Your task to perform on an android device: Go to CNN.com Image 0: 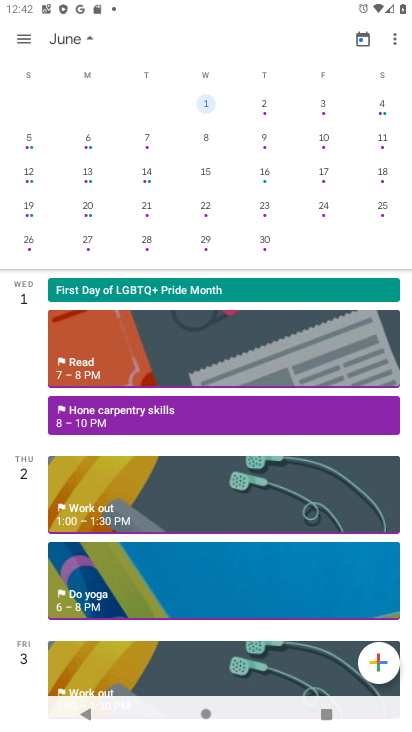
Step 0: press home button
Your task to perform on an android device: Go to CNN.com Image 1: 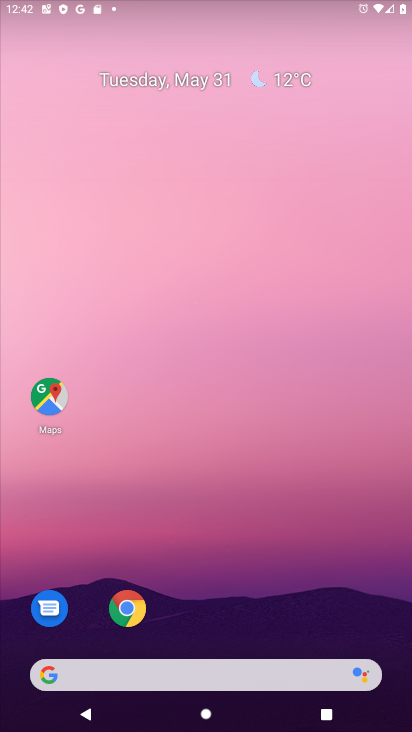
Step 1: drag from (233, 619) to (312, 66)
Your task to perform on an android device: Go to CNN.com Image 2: 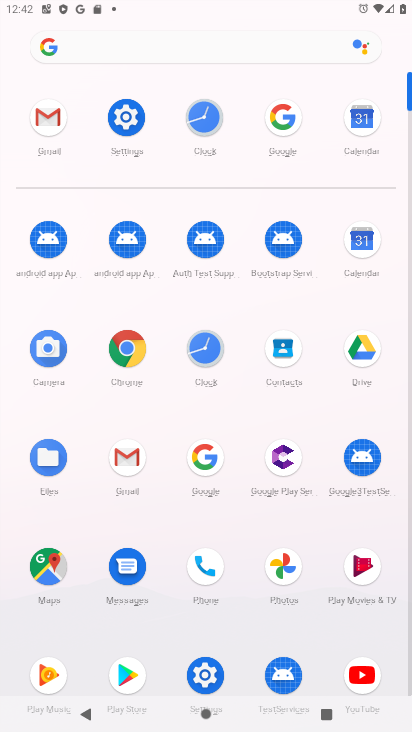
Step 2: click (288, 121)
Your task to perform on an android device: Go to CNN.com Image 3: 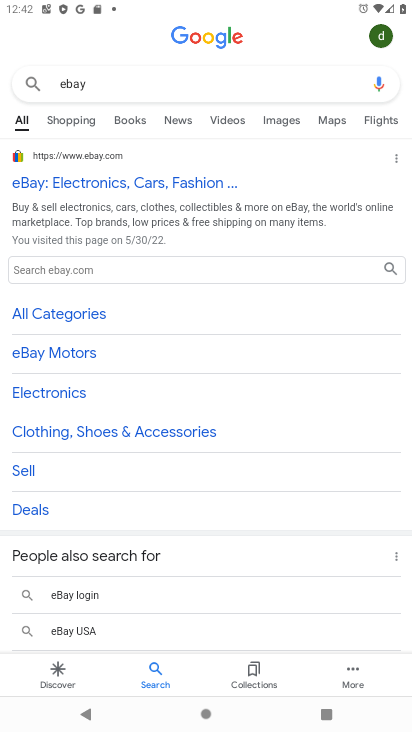
Step 3: click (162, 72)
Your task to perform on an android device: Go to CNN.com Image 4: 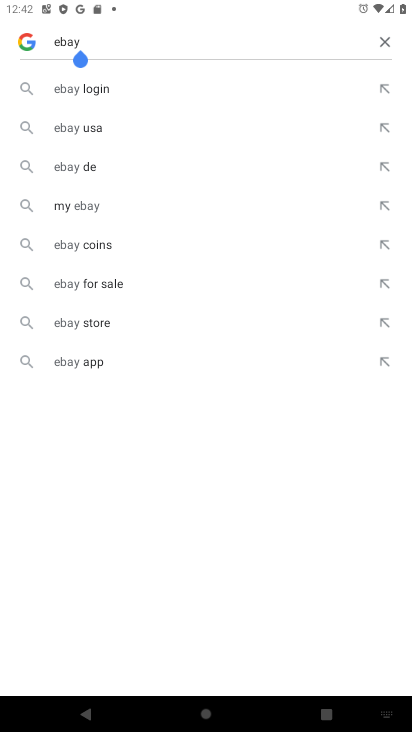
Step 4: click (386, 34)
Your task to perform on an android device: Go to CNN.com Image 5: 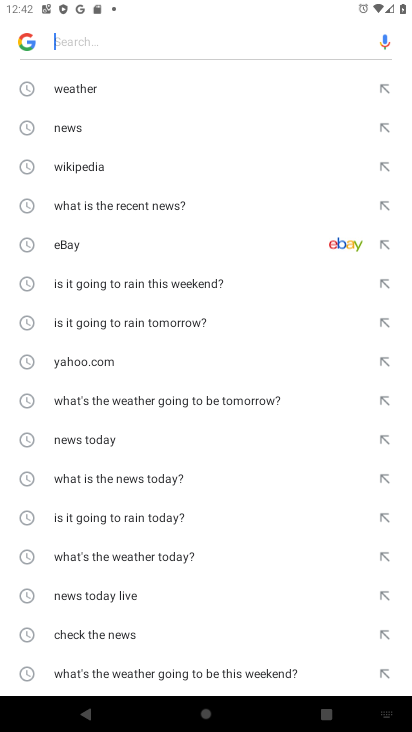
Step 5: drag from (151, 594) to (201, 163)
Your task to perform on an android device: Go to CNN.com Image 6: 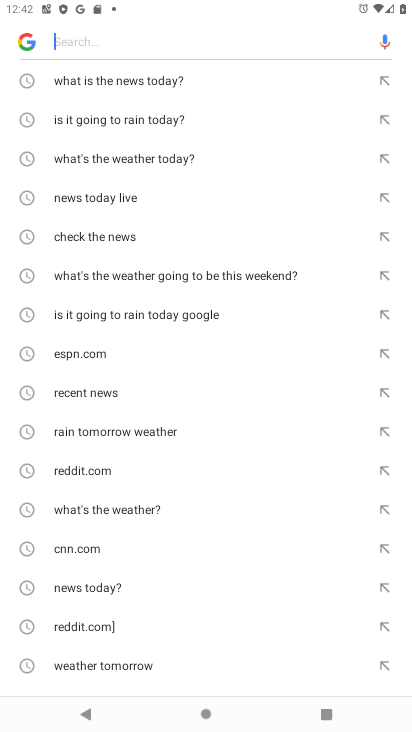
Step 6: click (103, 541)
Your task to perform on an android device: Go to CNN.com Image 7: 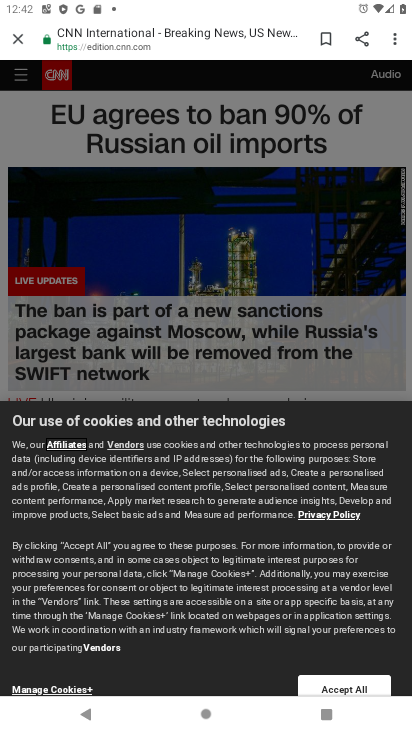
Step 7: task complete